Your task to perform on an android device: Clear the shopping cart on bestbuy.com. Add "razer blade" to the cart on bestbuy.com Image 0: 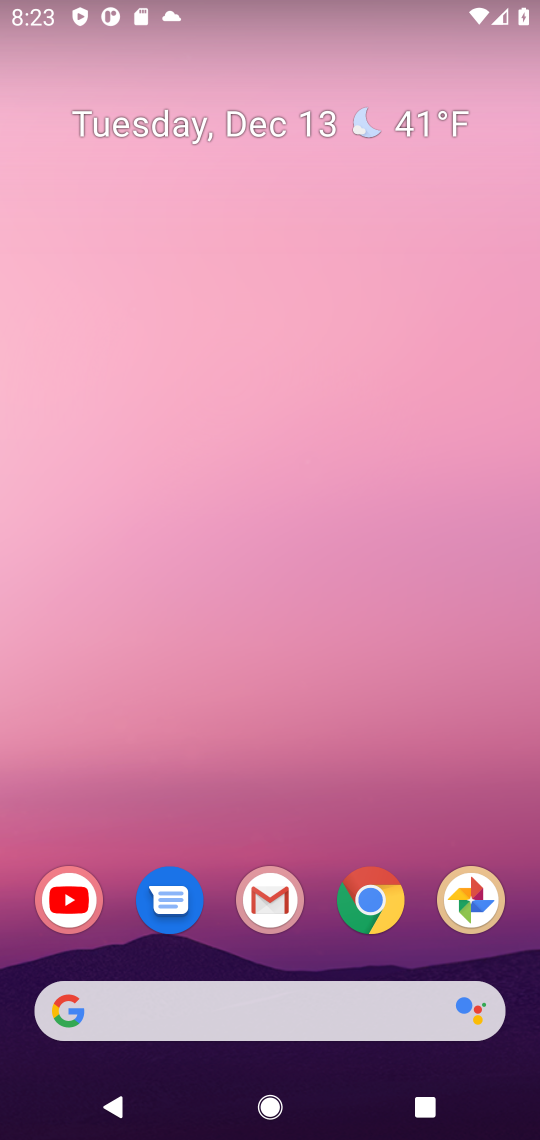
Step 0: click (366, 921)
Your task to perform on an android device: Clear the shopping cart on bestbuy.com. Add "razer blade" to the cart on bestbuy.com Image 1: 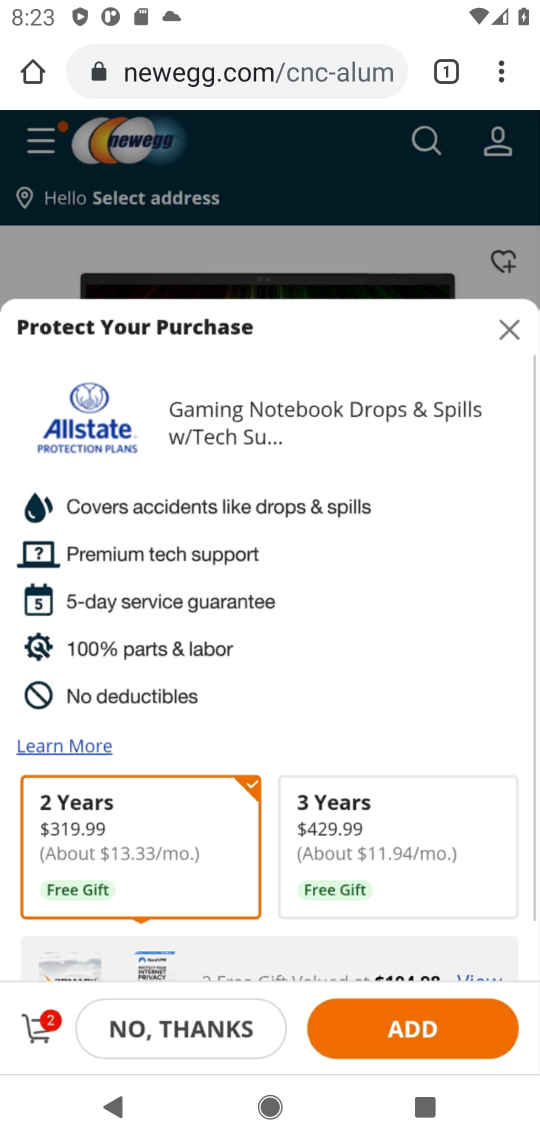
Step 1: click (192, 71)
Your task to perform on an android device: Clear the shopping cart on bestbuy.com. Add "razer blade" to the cart on bestbuy.com Image 2: 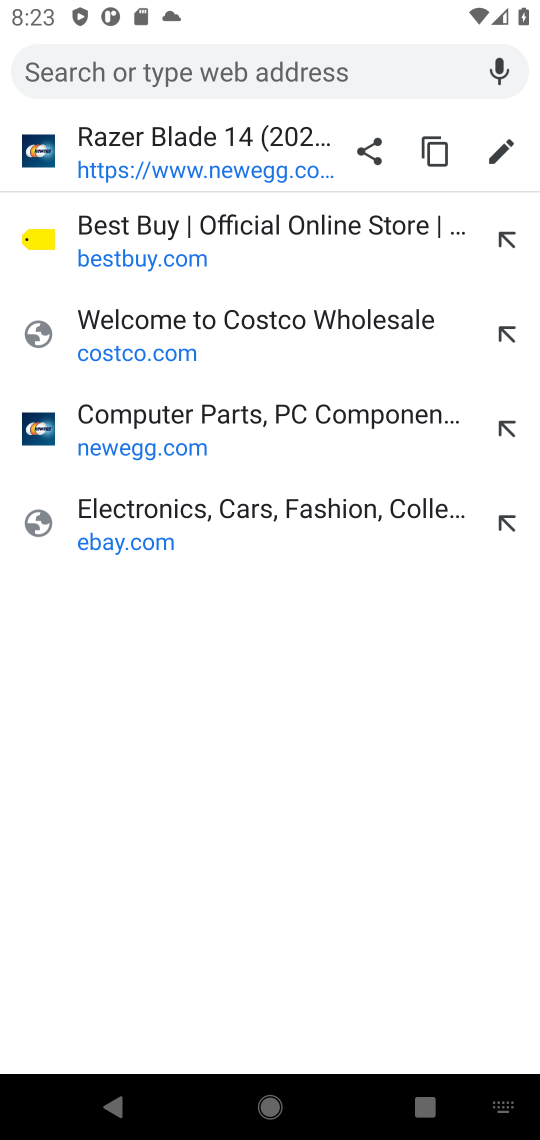
Step 2: click (283, 241)
Your task to perform on an android device: Clear the shopping cart on bestbuy.com. Add "razer blade" to the cart on bestbuy.com Image 3: 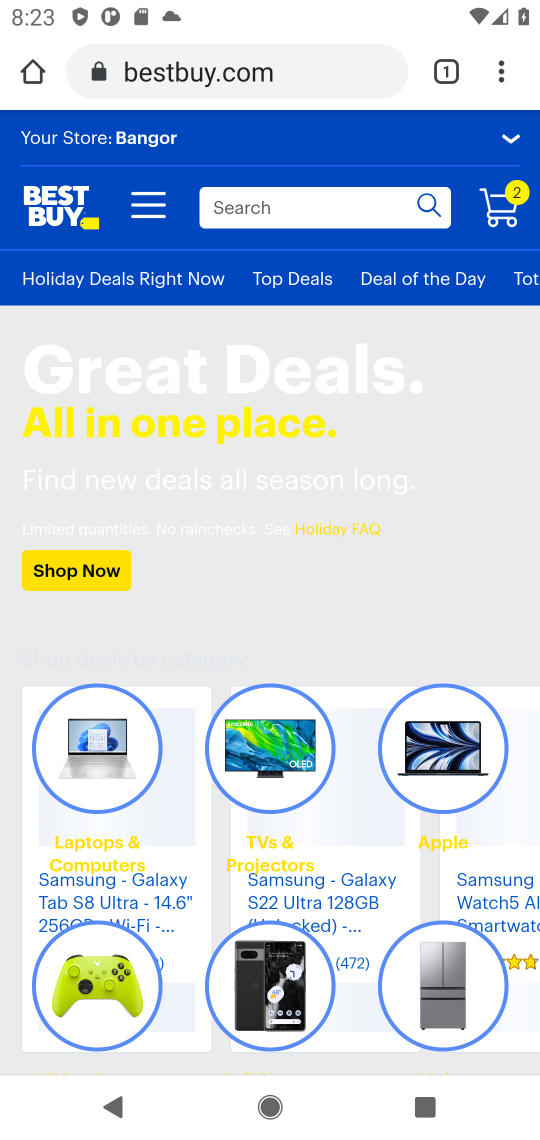
Step 3: click (514, 207)
Your task to perform on an android device: Clear the shopping cart on bestbuy.com. Add "razer blade" to the cart on bestbuy.com Image 4: 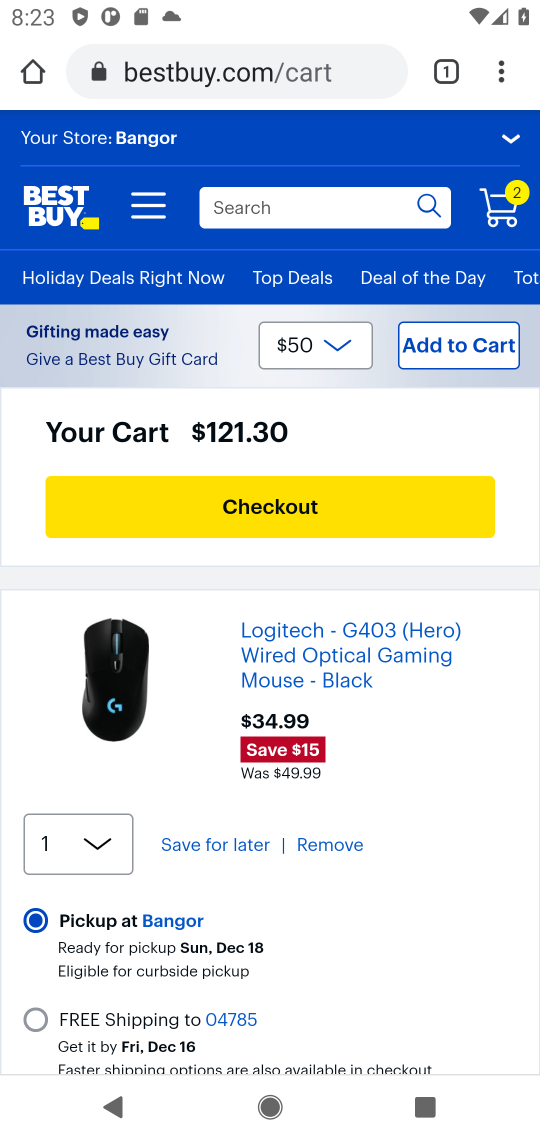
Step 4: click (333, 847)
Your task to perform on an android device: Clear the shopping cart on bestbuy.com. Add "razer blade" to the cart on bestbuy.com Image 5: 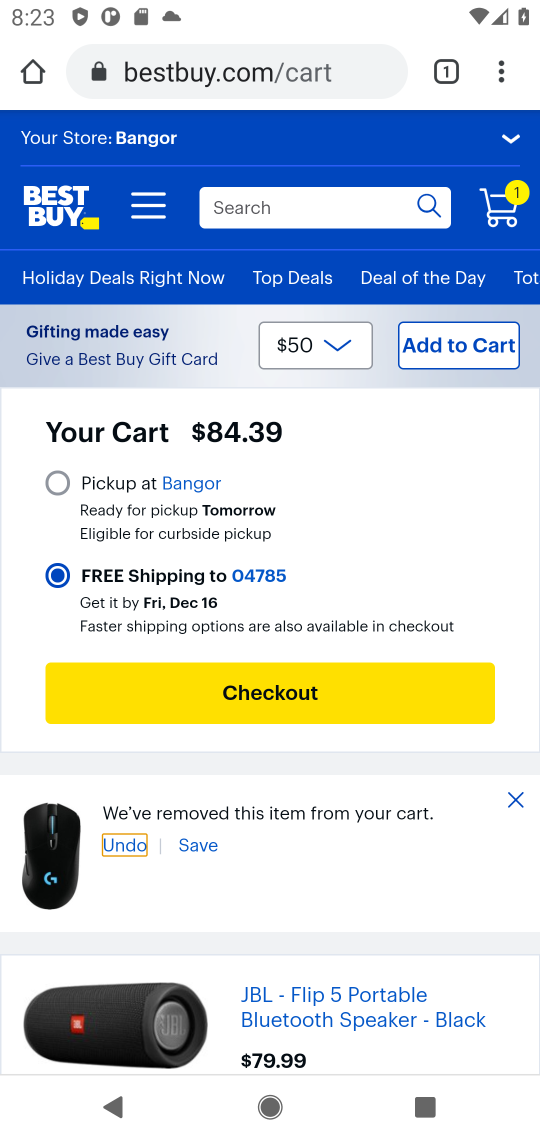
Step 5: drag from (361, 1026) to (322, 386)
Your task to perform on an android device: Clear the shopping cart on bestbuy.com. Add "razer blade" to the cart on bestbuy.com Image 6: 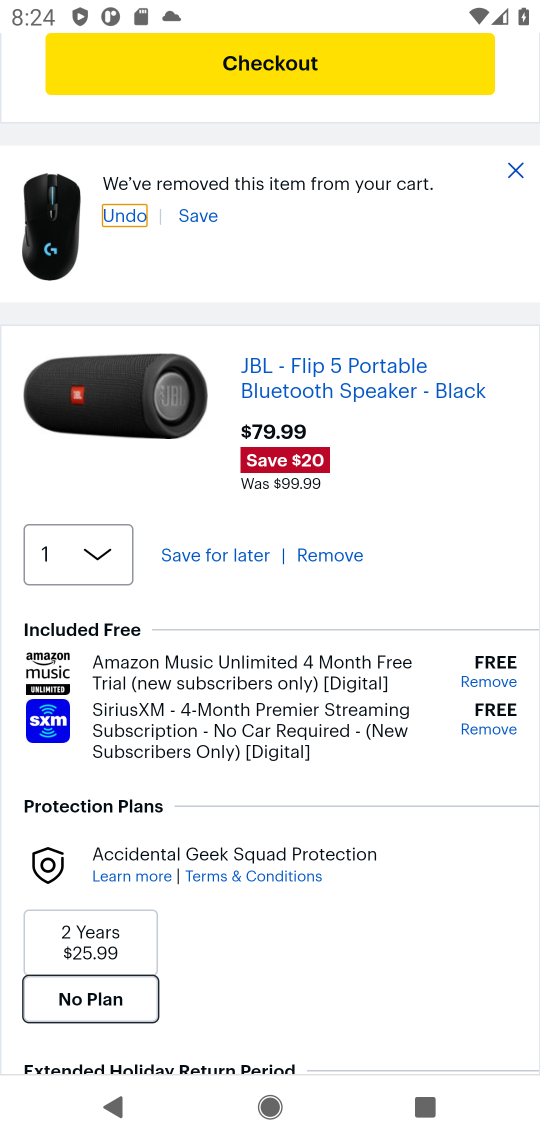
Step 6: click (313, 553)
Your task to perform on an android device: Clear the shopping cart on bestbuy.com. Add "razer blade" to the cart on bestbuy.com Image 7: 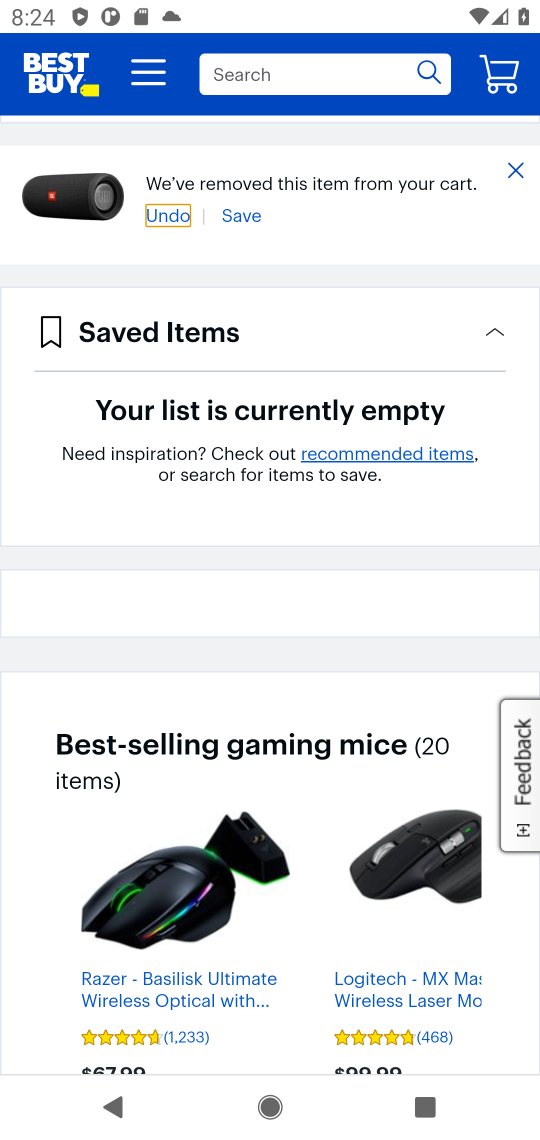
Step 7: click (299, 73)
Your task to perform on an android device: Clear the shopping cart on bestbuy.com. Add "razer blade" to the cart on bestbuy.com Image 8: 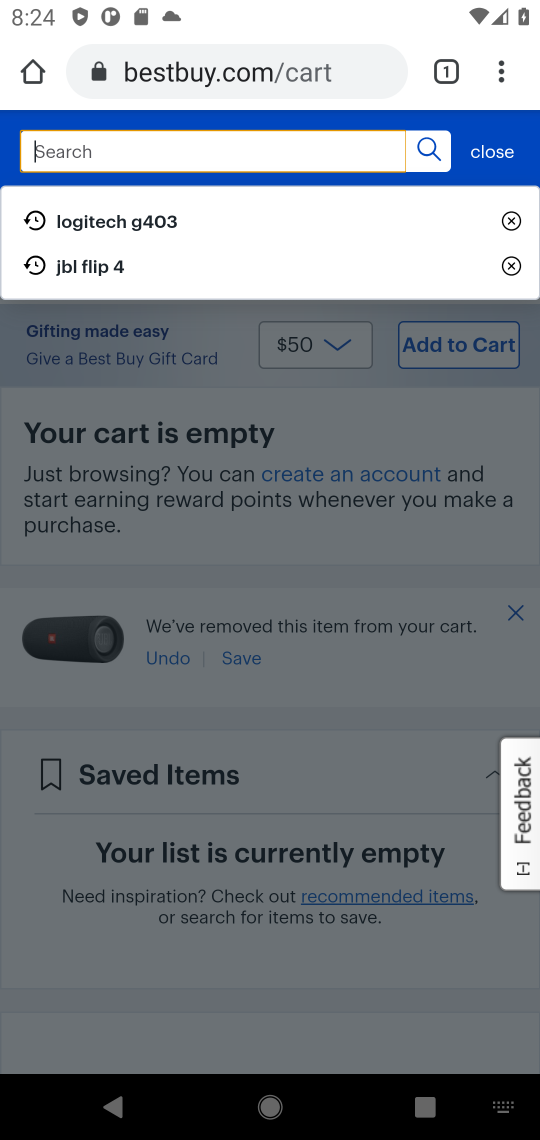
Step 8: type "razer blade"
Your task to perform on an android device: Clear the shopping cart on bestbuy.com. Add "razer blade" to the cart on bestbuy.com Image 9: 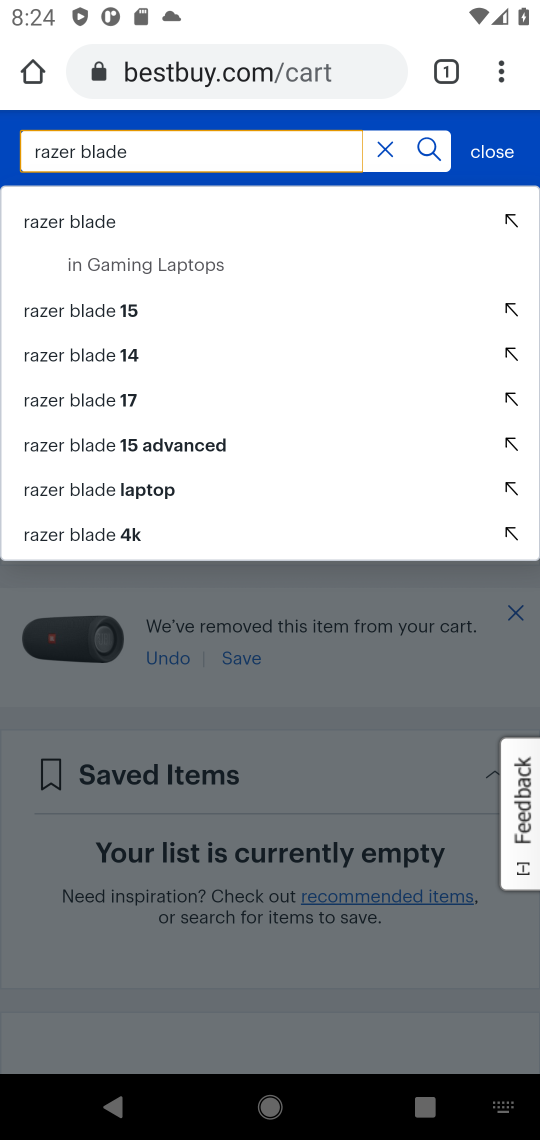
Step 9: click (84, 230)
Your task to perform on an android device: Clear the shopping cart on bestbuy.com. Add "razer blade" to the cart on bestbuy.com Image 10: 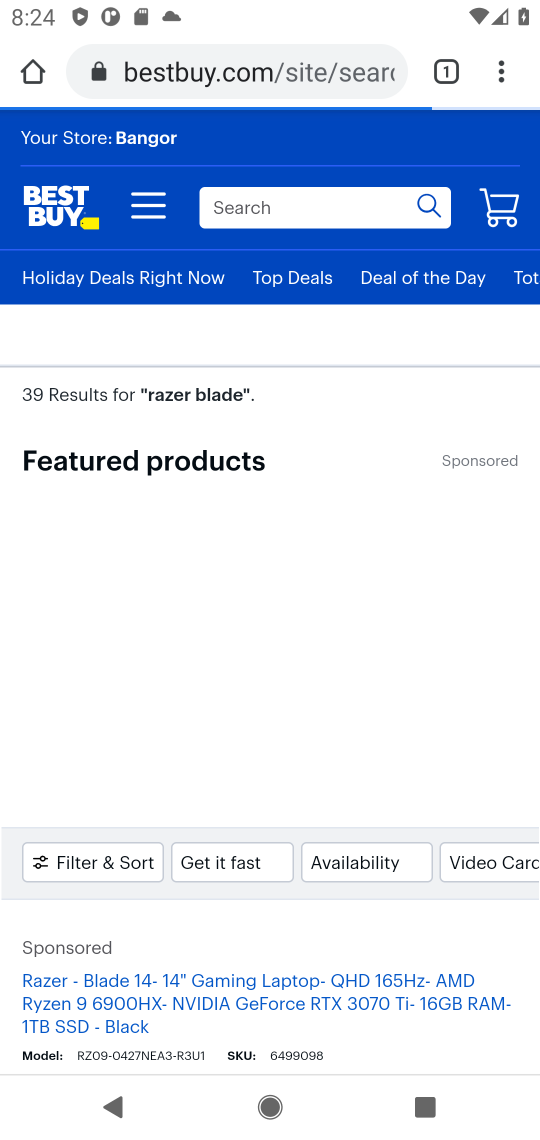
Step 10: click (428, 152)
Your task to perform on an android device: Clear the shopping cart on bestbuy.com. Add "razer blade" to the cart on bestbuy.com Image 11: 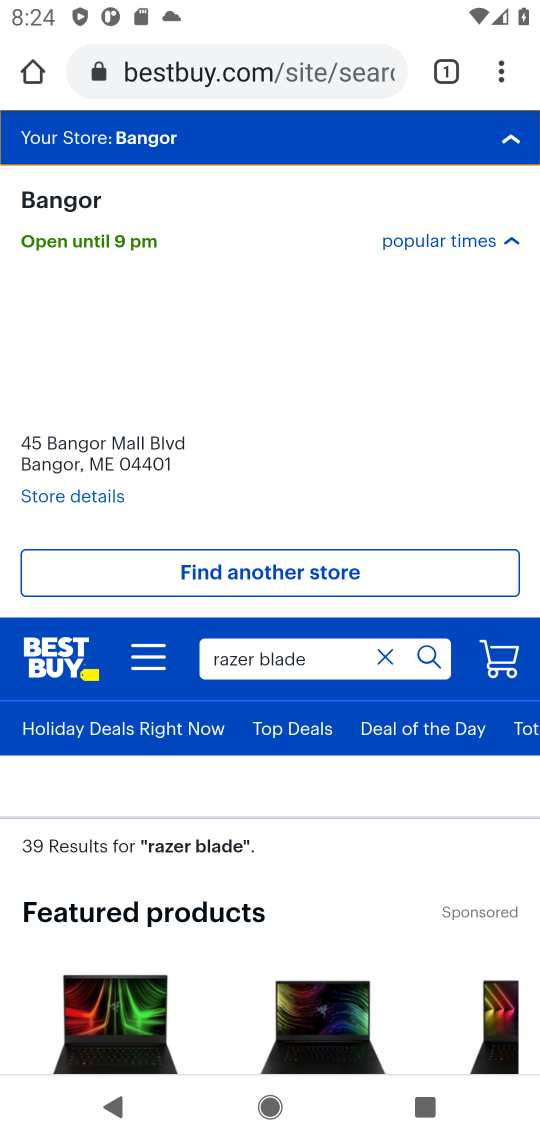
Step 11: drag from (286, 883) to (246, 203)
Your task to perform on an android device: Clear the shopping cart on bestbuy.com. Add "razer blade" to the cart on bestbuy.com Image 12: 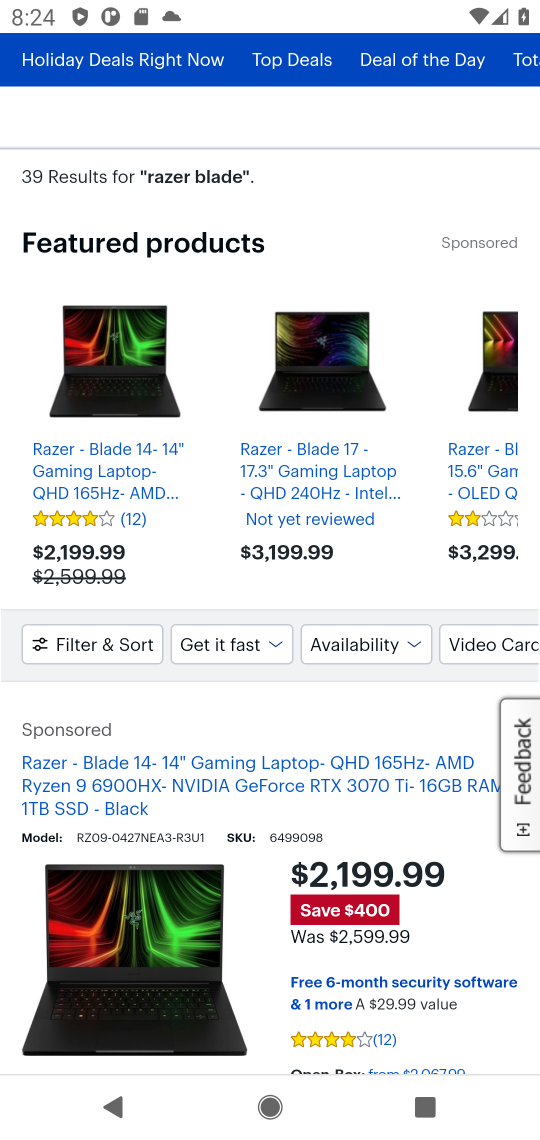
Step 12: click (398, 666)
Your task to perform on an android device: Clear the shopping cart on bestbuy.com. Add "razer blade" to the cart on bestbuy.com Image 13: 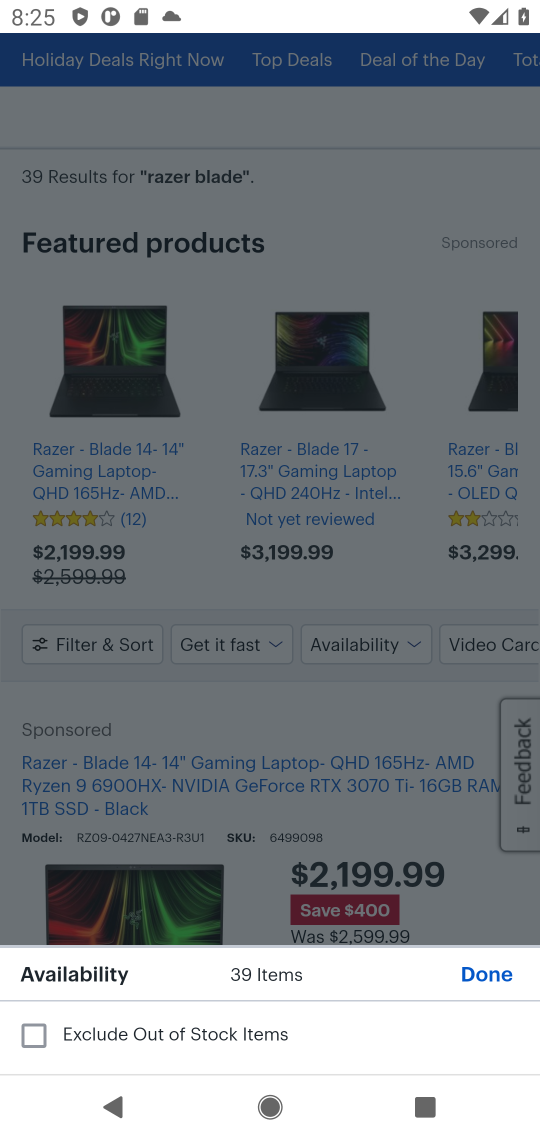
Step 13: click (435, 892)
Your task to perform on an android device: Clear the shopping cart on bestbuy.com. Add "razer blade" to the cart on bestbuy.com Image 14: 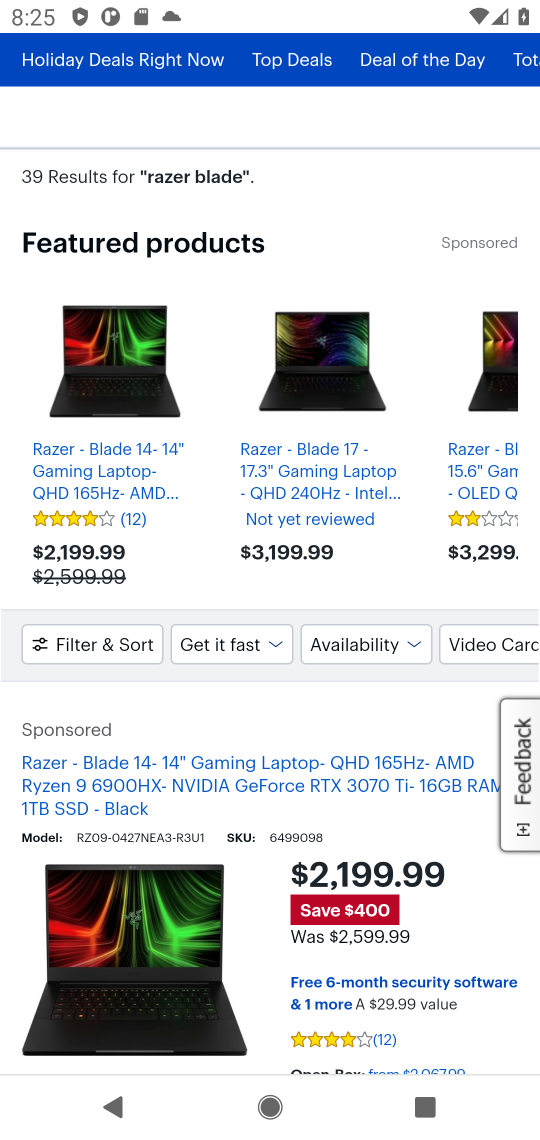
Step 14: drag from (435, 892) to (375, 234)
Your task to perform on an android device: Clear the shopping cart on bestbuy.com. Add "razer blade" to the cart on bestbuy.com Image 15: 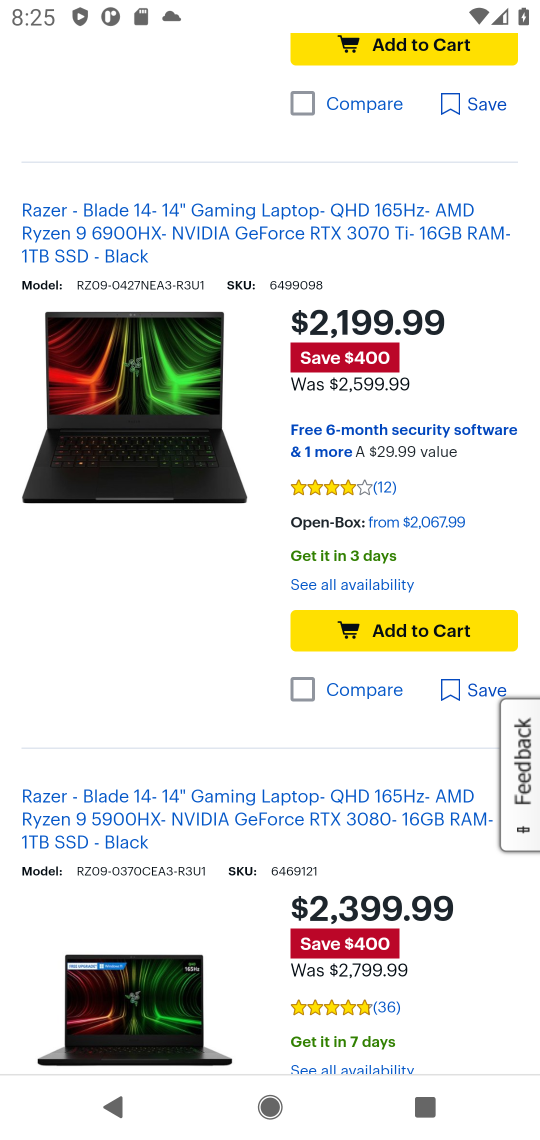
Step 15: click (396, 535)
Your task to perform on an android device: Clear the shopping cart on bestbuy.com. Add "razer blade" to the cart on bestbuy.com Image 16: 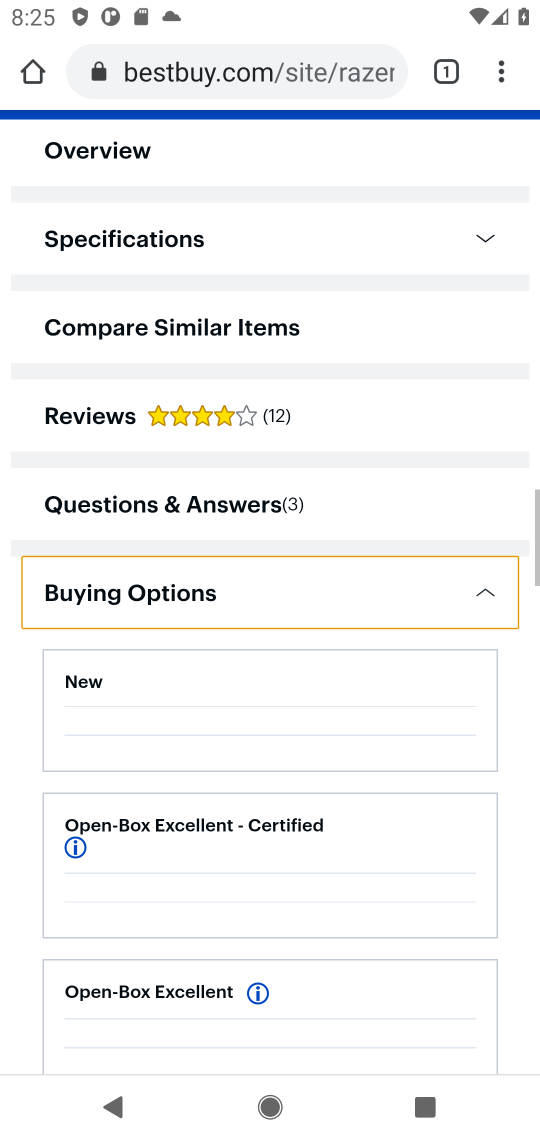
Step 16: drag from (400, 1014) to (351, 184)
Your task to perform on an android device: Clear the shopping cart on bestbuy.com. Add "razer blade" to the cart on bestbuy.com Image 17: 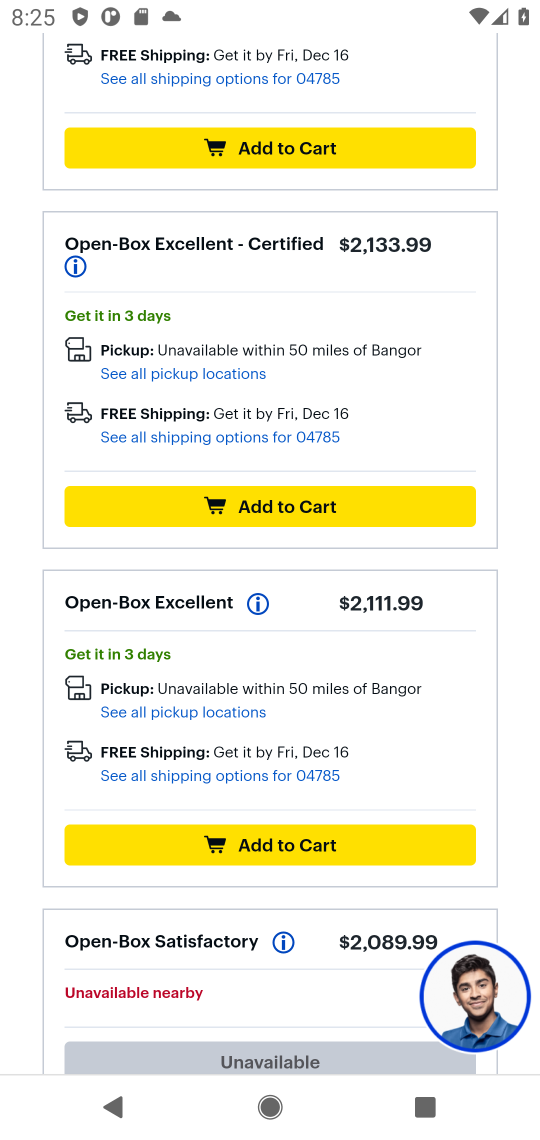
Step 17: click (286, 150)
Your task to perform on an android device: Clear the shopping cart on bestbuy.com. Add "razer blade" to the cart on bestbuy.com Image 18: 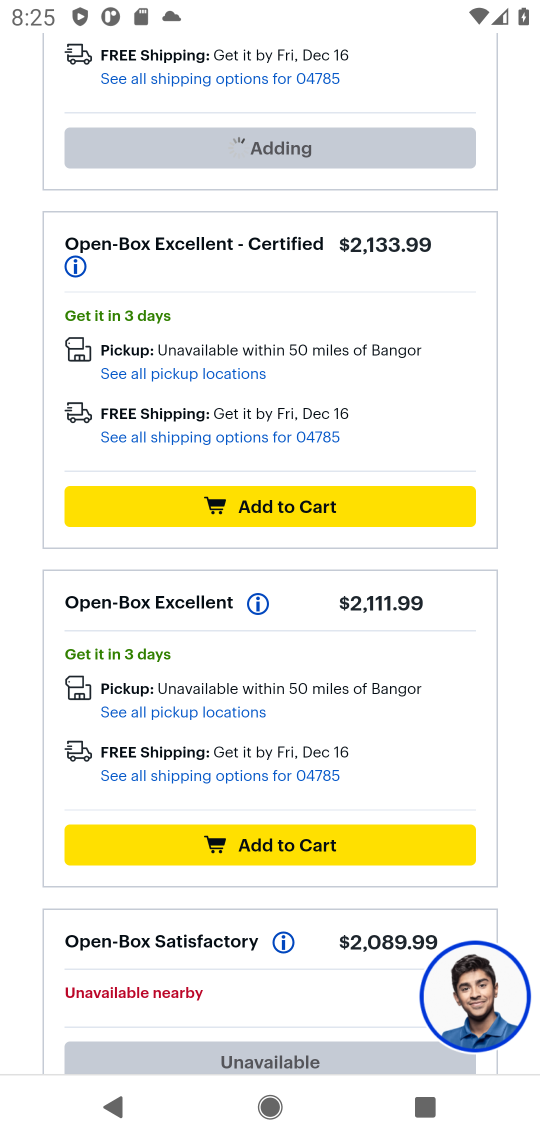
Step 18: task complete